Your task to perform on an android device: change the clock display to digital Image 0: 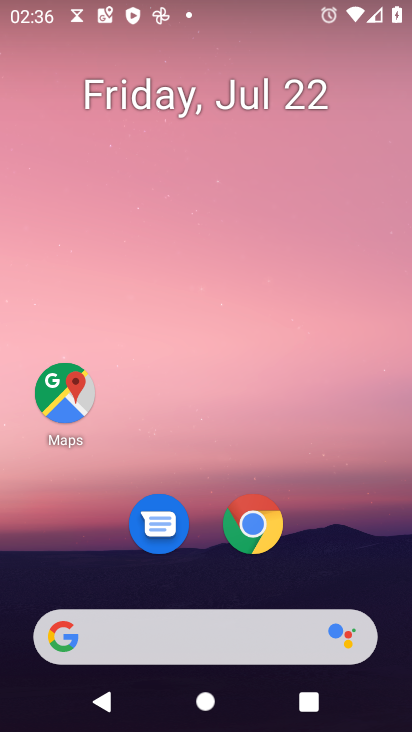
Step 0: drag from (127, 635) to (280, 106)
Your task to perform on an android device: change the clock display to digital Image 1: 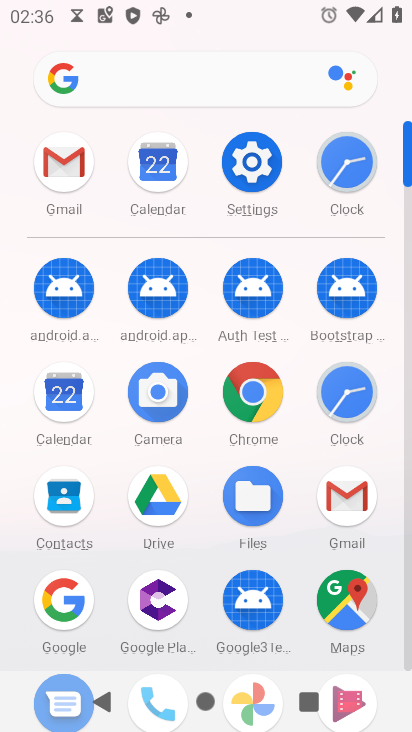
Step 1: click (341, 406)
Your task to perform on an android device: change the clock display to digital Image 2: 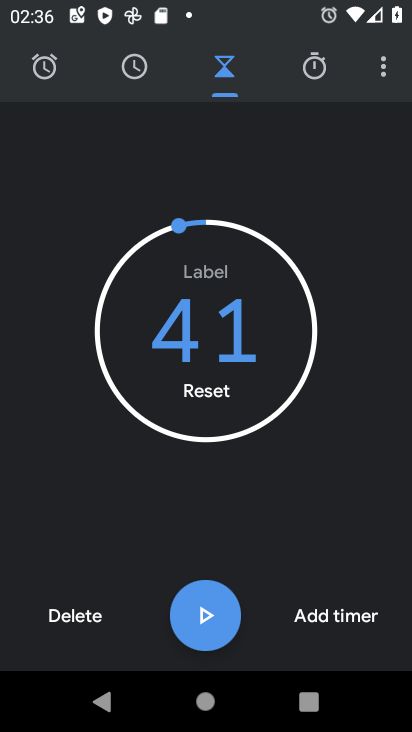
Step 2: click (384, 78)
Your task to perform on an android device: change the clock display to digital Image 3: 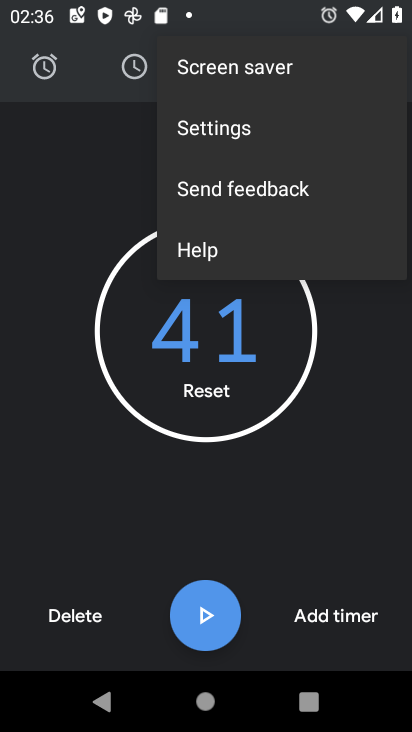
Step 3: click (236, 135)
Your task to perform on an android device: change the clock display to digital Image 4: 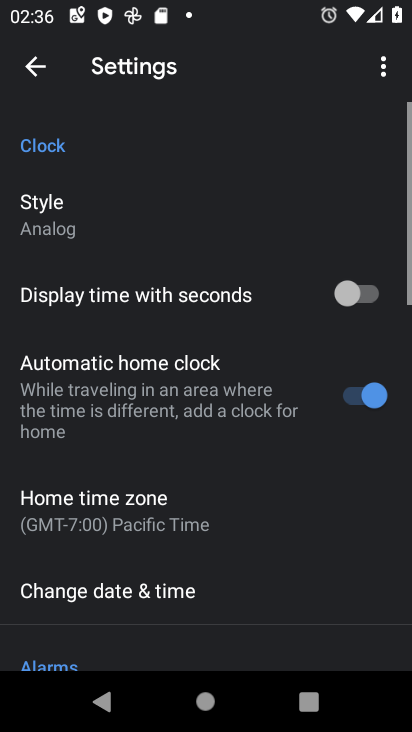
Step 4: click (58, 219)
Your task to perform on an android device: change the clock display to digital Image 5: 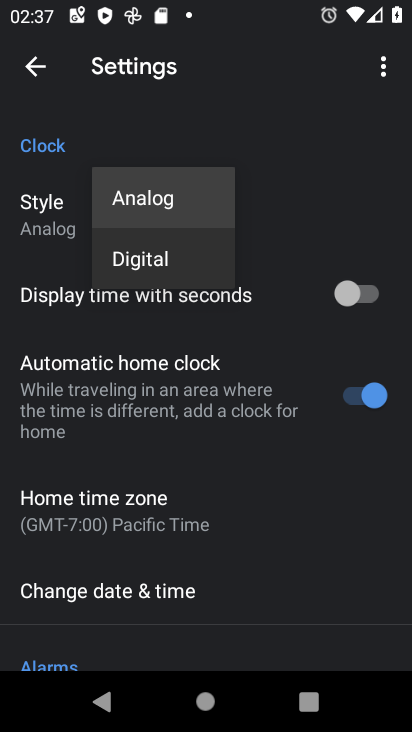
Step 5: click (125, 274)
Your task to perform on an android device: change the clock display to digital Image 6: 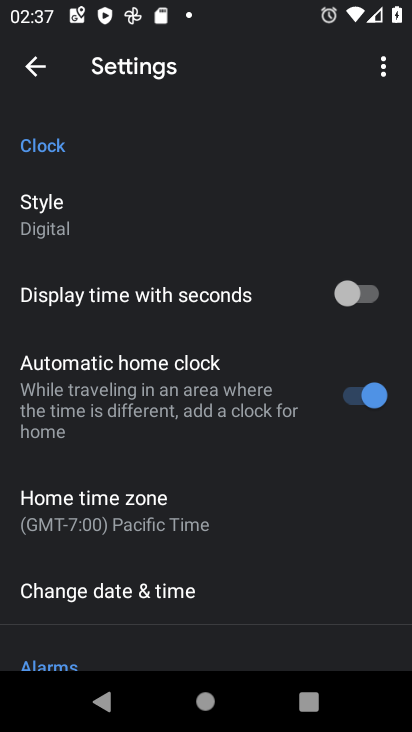
Step 6: task complete